Your task to perform on an android device: Search for sony triple a on target, select the first entry, and add it to the cart. Image 0: 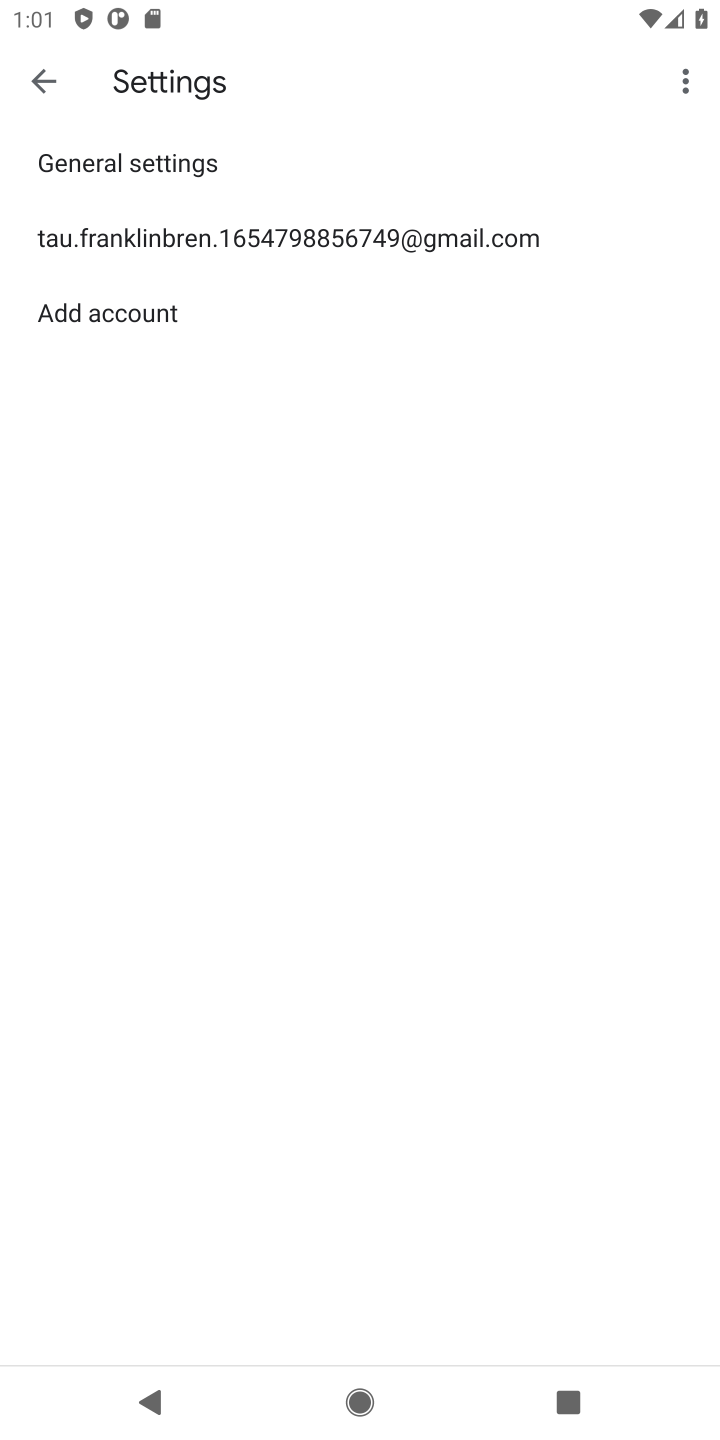
Step 0: press home button
Your task to perform on an android device: Search for sony triple a on target, select the first entry, and add it to the cart. Image 1: 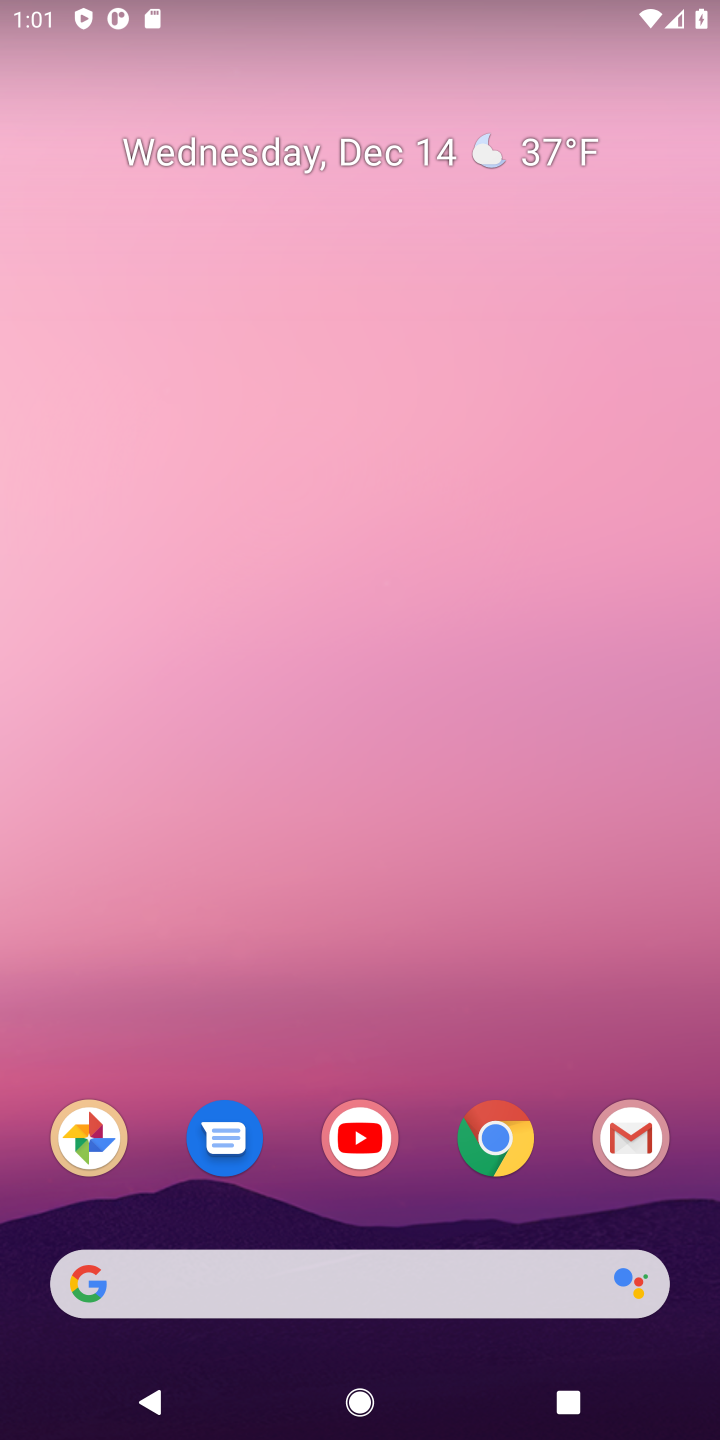
Step 1: click (501, 1149)
Your task to perform on an android device: Search for sony triple a on target, select the first entry, and add it to the cart. Image 2: 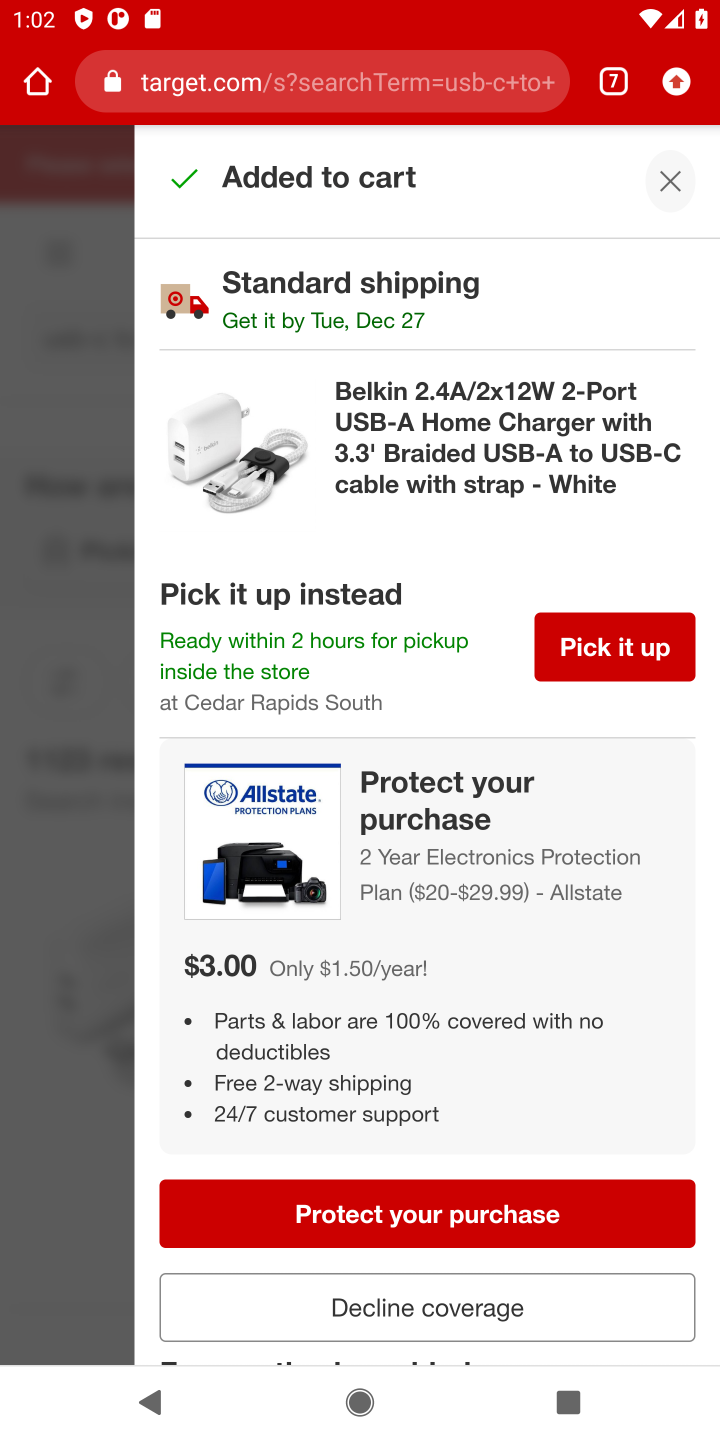
Step 2: click (663, 188)
Your task to perform on an android device: Search for sony triple a on target, select the first entry, and add it to the cart. Image 3: 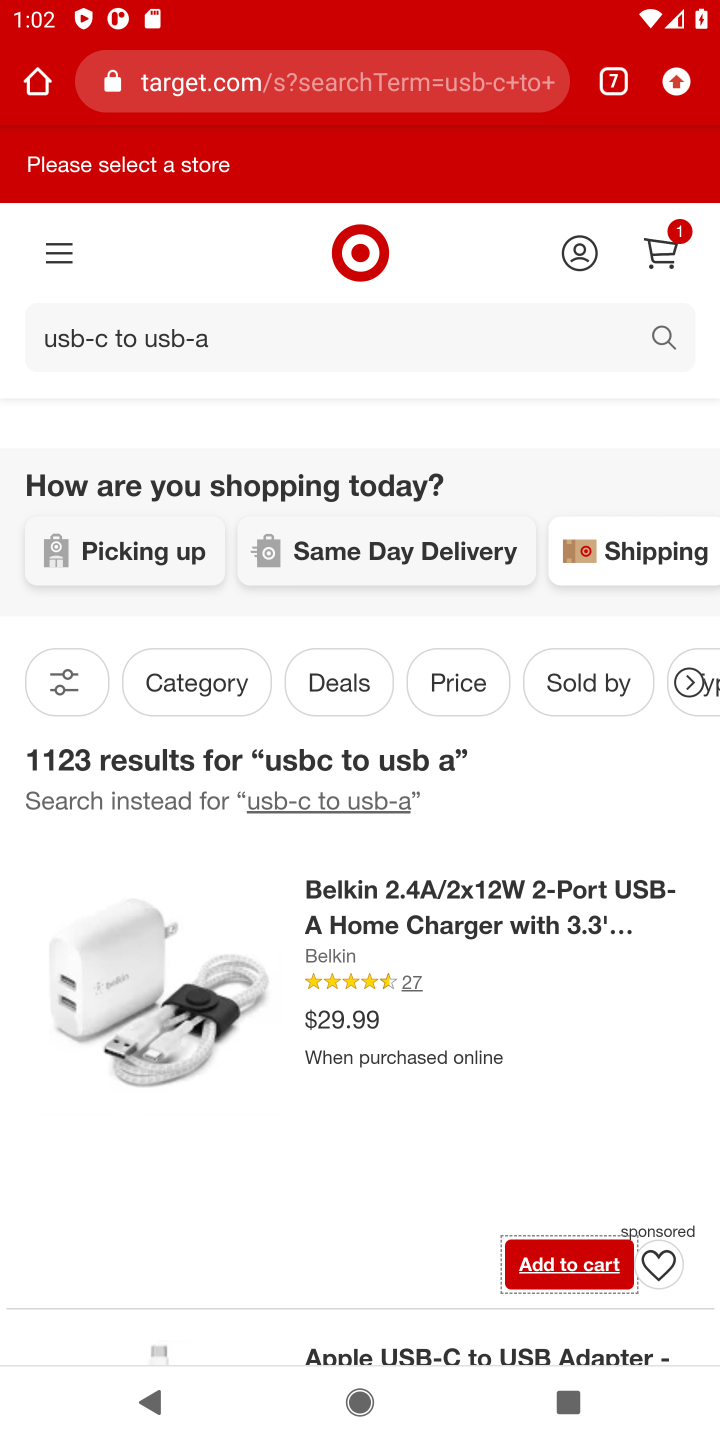
Step 3: click (283, 347)
Your task to perform on an android device: Search for sony triple a on target, select the first entry, and add it to the cart. Image 4: 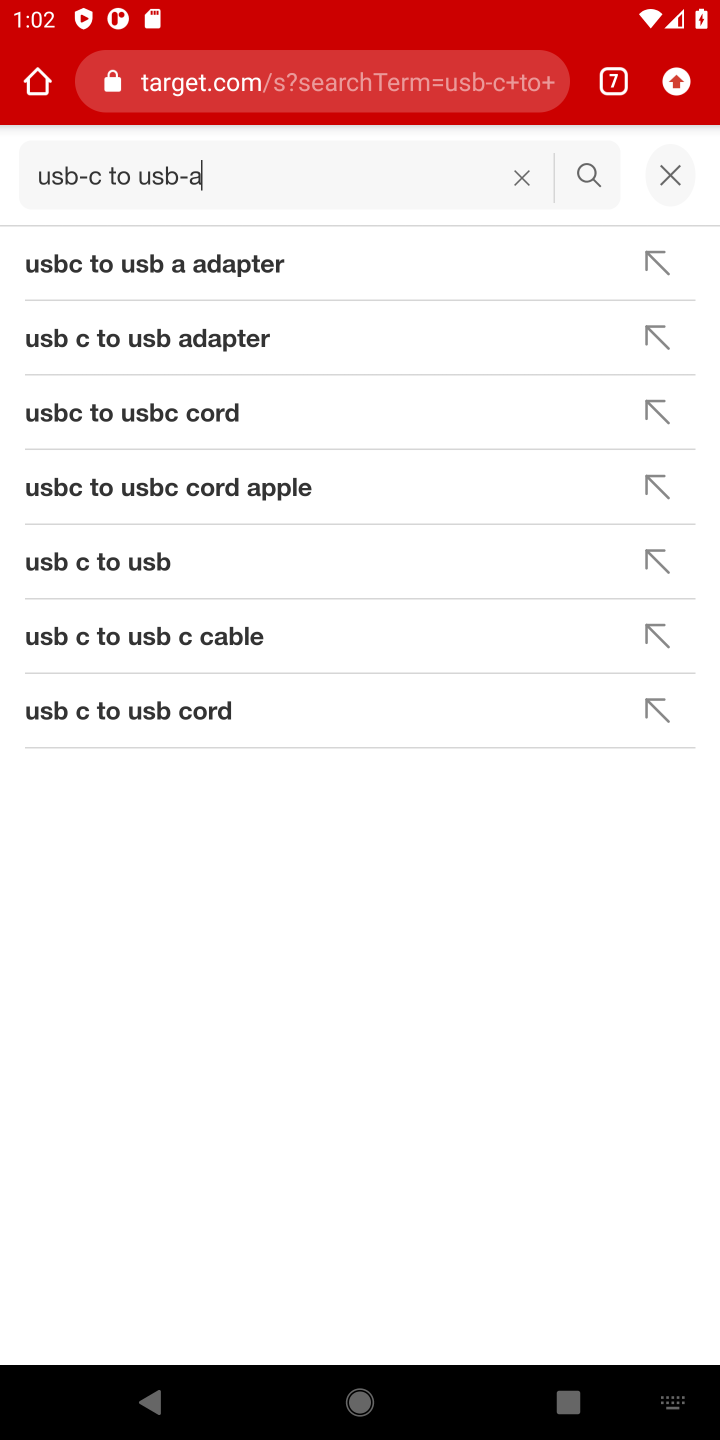
Step 4: click (528, 181)
Your task to perform on an android device: Search for sony triple a on target, select the first entry, and add it to the cart. Image 5: 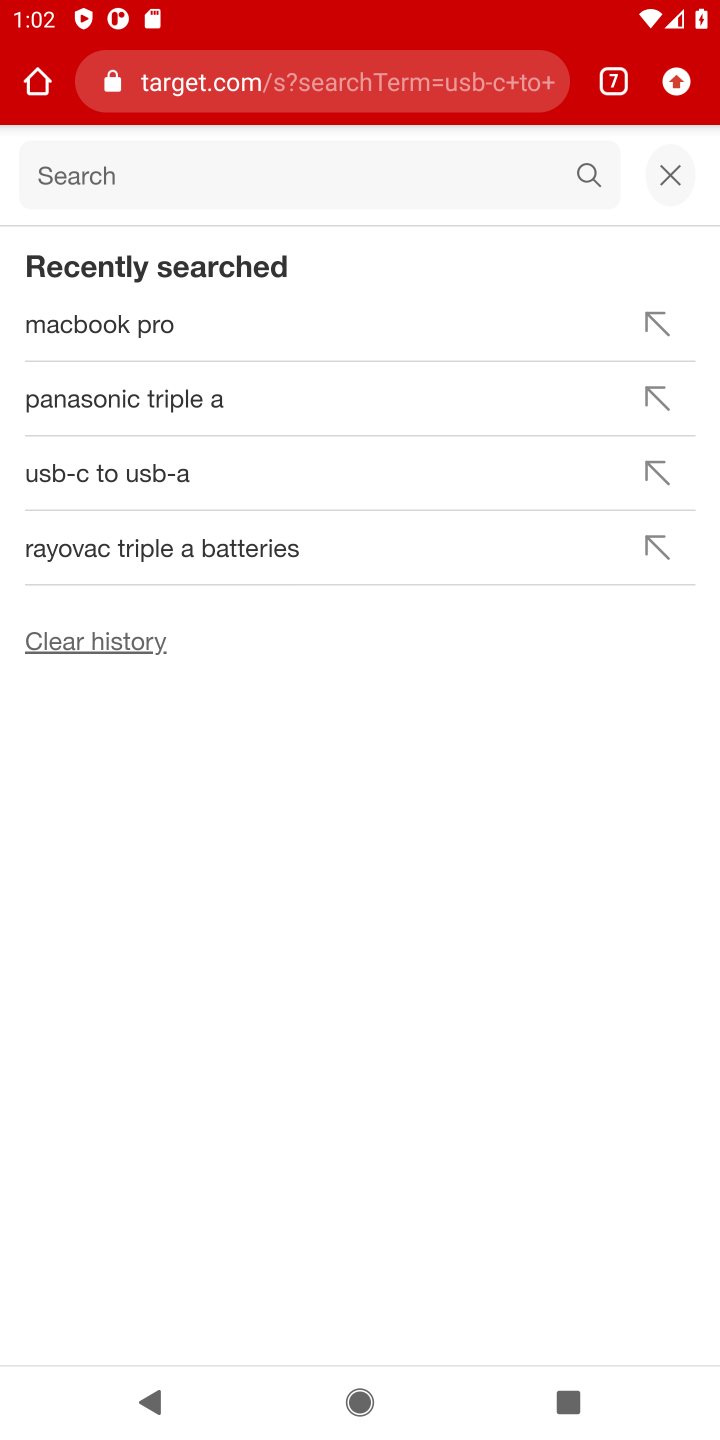
Step 5: type "sony triple a"
Your task to perform on an android device: Search for sony triple a on target, select the first entry, and add it to the cart. Image 6: 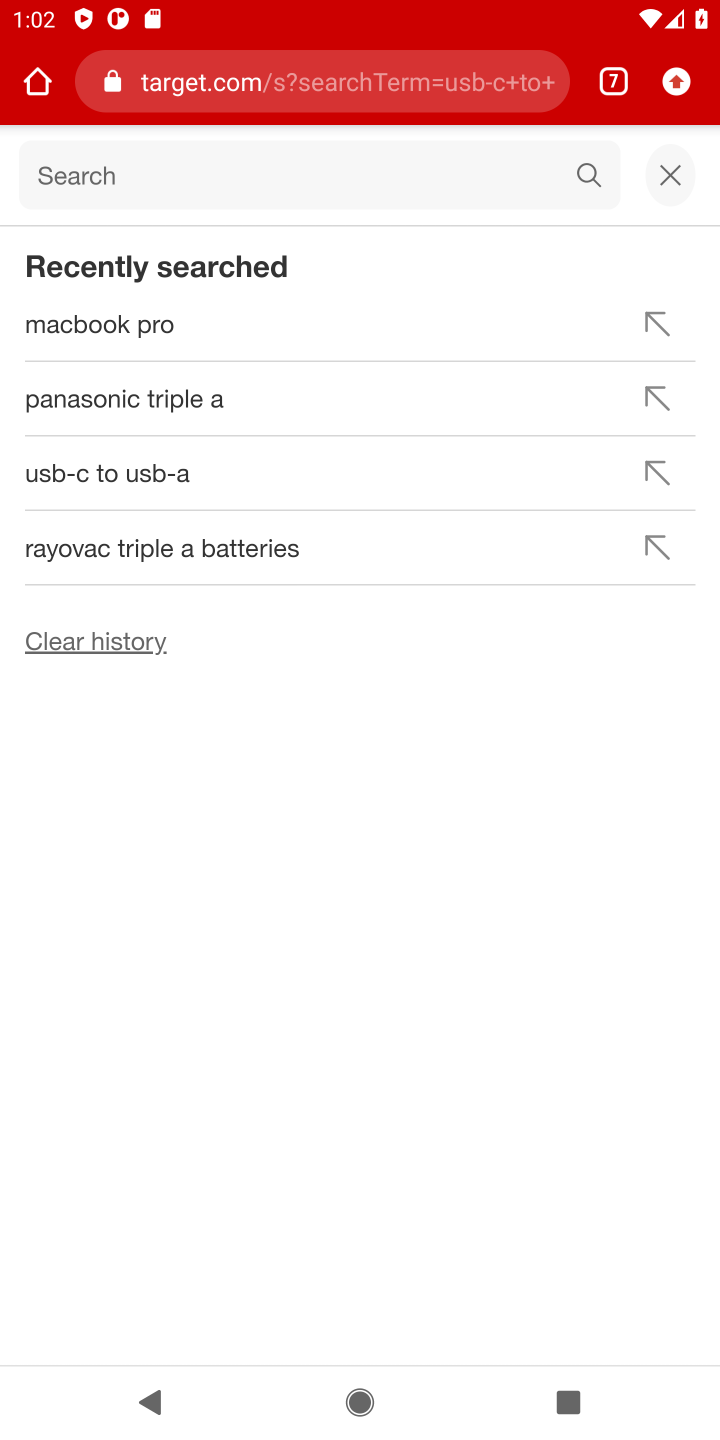
Step 6: click (140, 176)
Your task to perform on an android device: Search for sony triple a on target, select the first entry, and add it to the cart. Image 7: 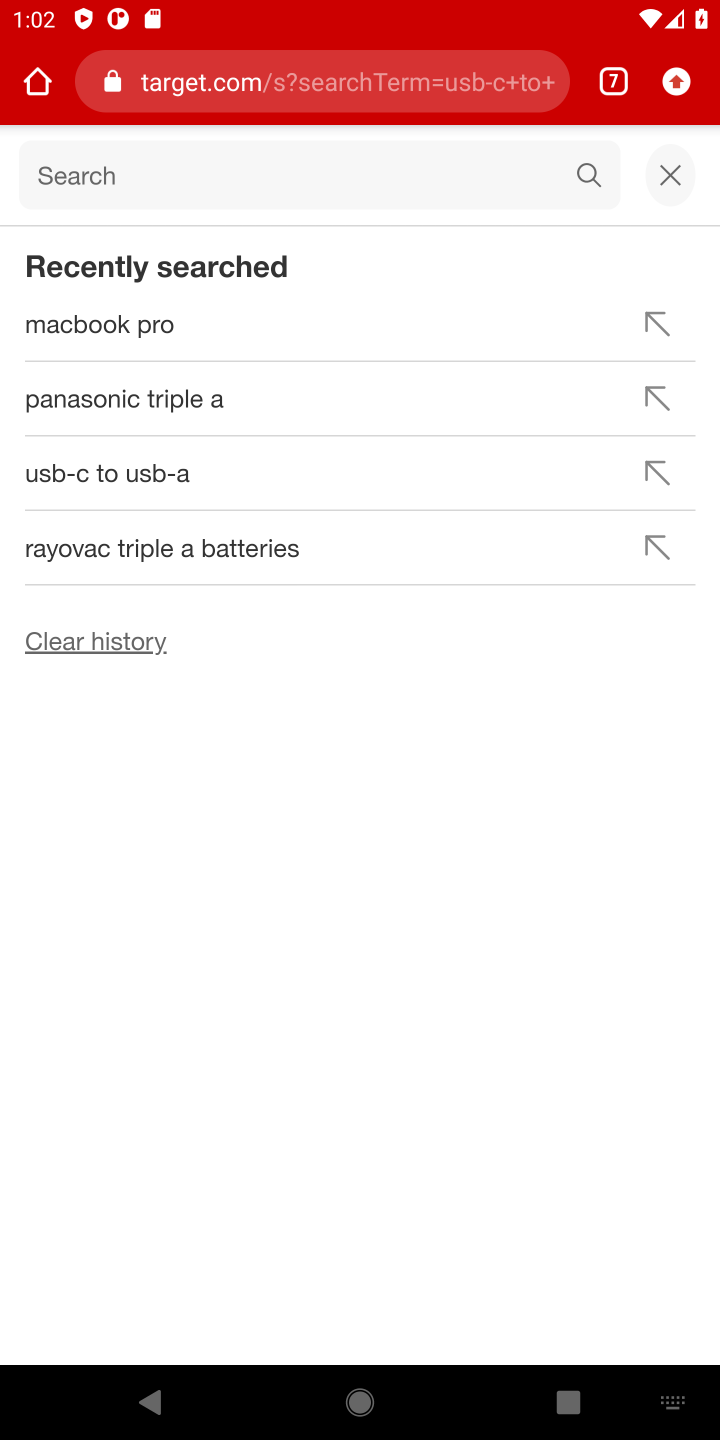
Step 7: type "sony triple a"
Your task to perform on an android device: Search for sony triple a on target, select the first entry, and add it to the cart. Image 8: 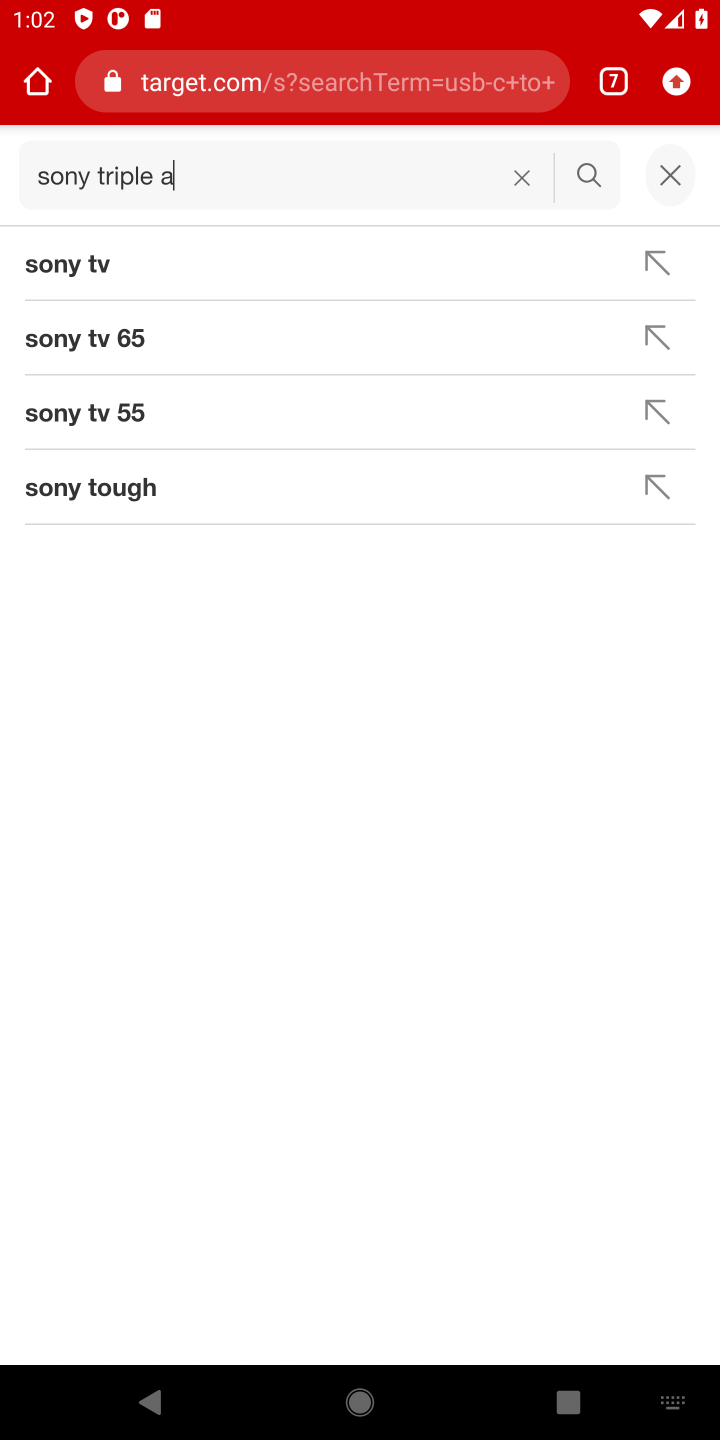
Step 8: click (578, 168)
Your task to perform on an android device: Search for sony triple a on target, select the first entry, and add it to the cart. Image 9: 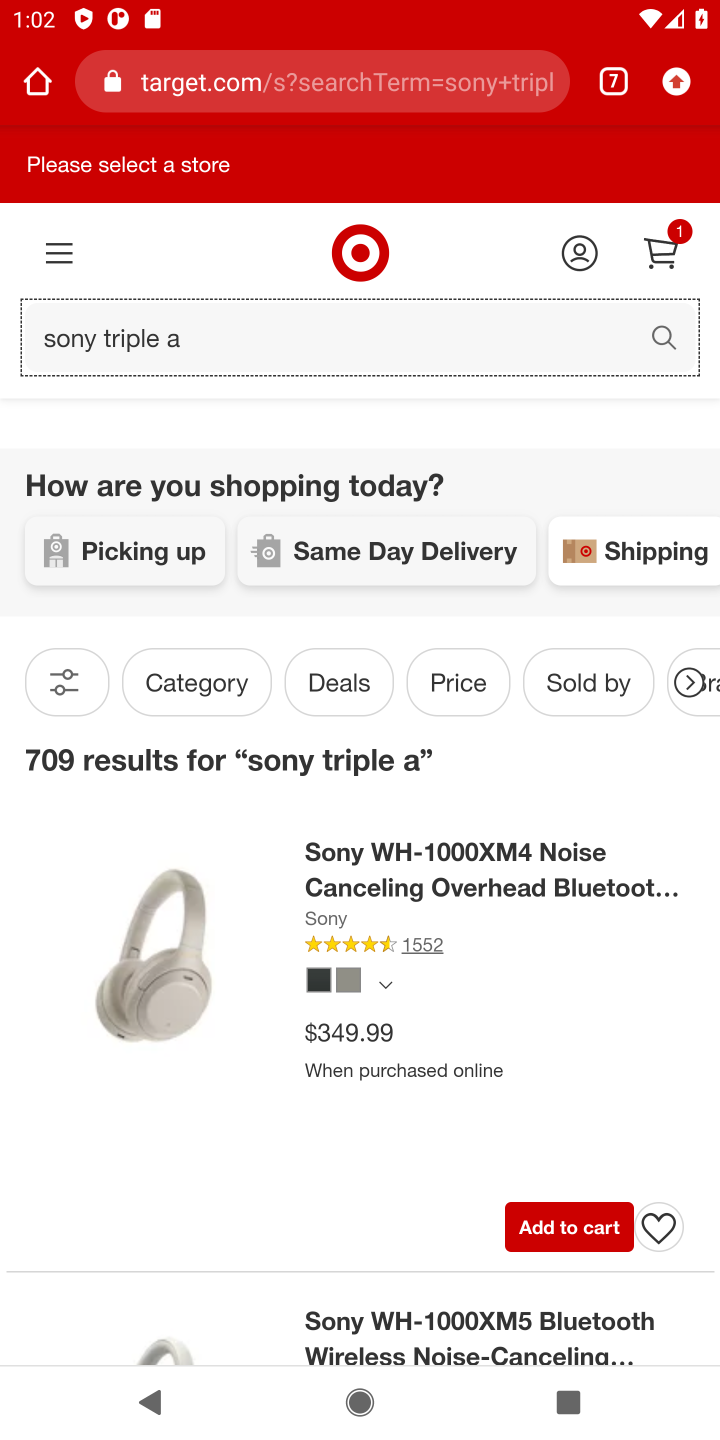
Step 9: task complete